Your task to perform on an android device: find snoozed emails in the gmail app Image 0: 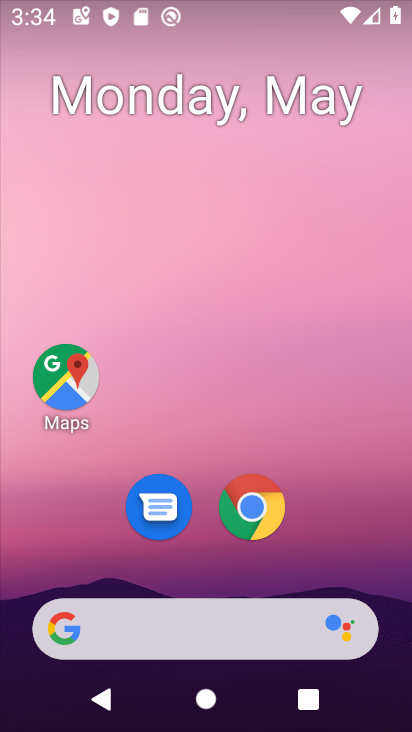
Step 0: drag from (197, 585) to (235, 43)
Your task to perform on an android device: find snoozed emails in the gmail app Image 1: 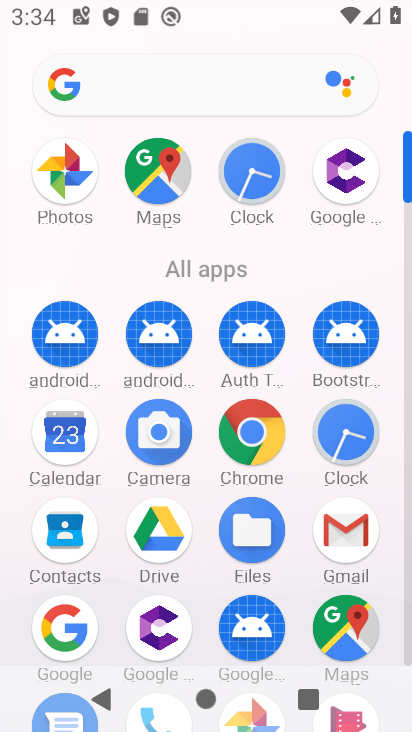
Step 1: click (332, 539)
Your task to perform on an android device: find snoozed emails in the gmail app Image 2: 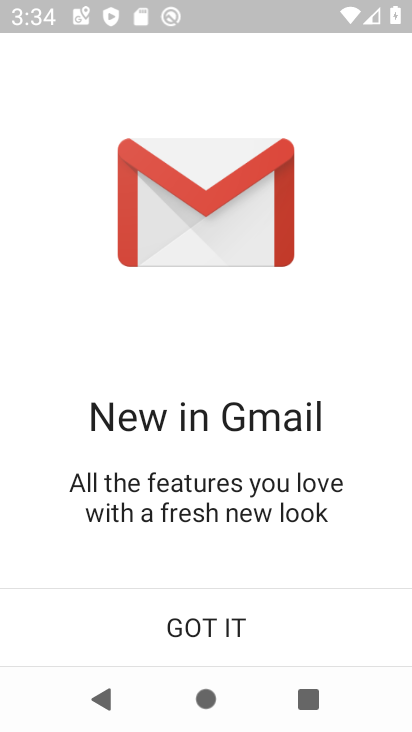
Step 2: click (155, 592)
Your task to perform on an android device: find snoozed emails in the gmail app Image 3: 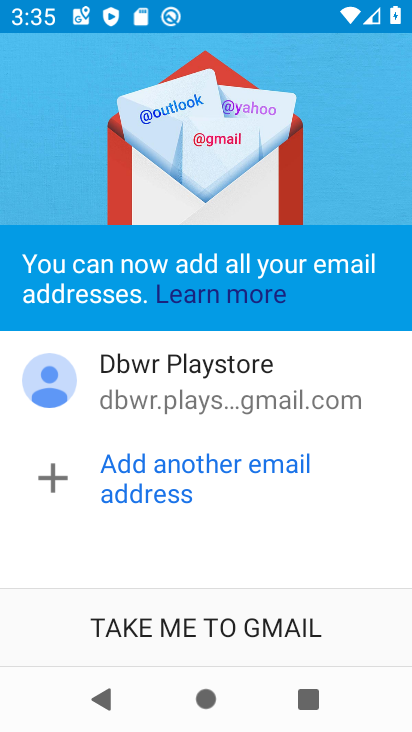
Step 3: click (133, 650)
Your task to perform on an android device: find snoozed emails in the gmail app Image 4: 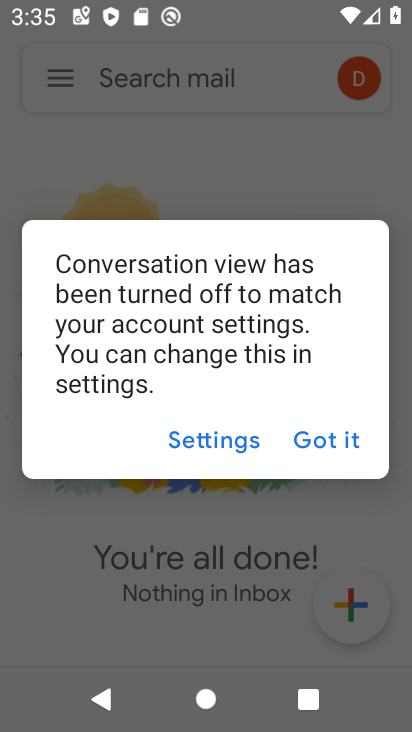
Step 4: click (331, 450)
Your task to perform on an android device: find snoozed emails in the gmail app Image 5: 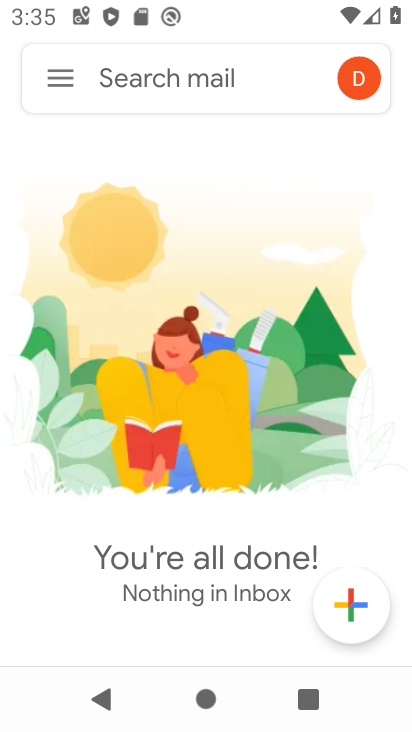
Step 5: click (46, 85)
Your task to perform on an android device: find snoozed emails in the gmail app Image 6: 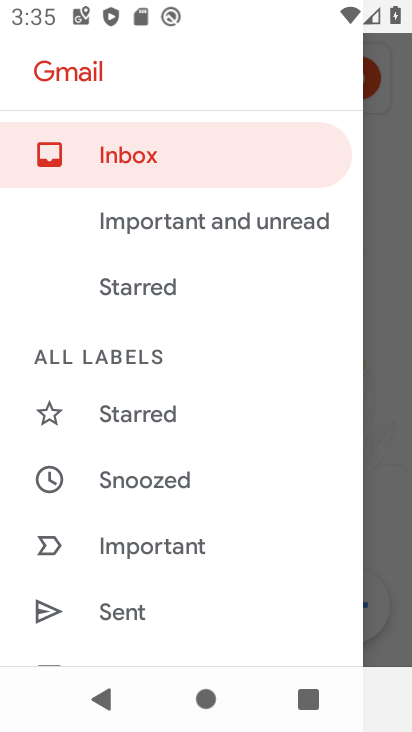
Step 6: click (123, 473)
Your task to perform on an android device: find snoozed emails in the gmail app Image 7: 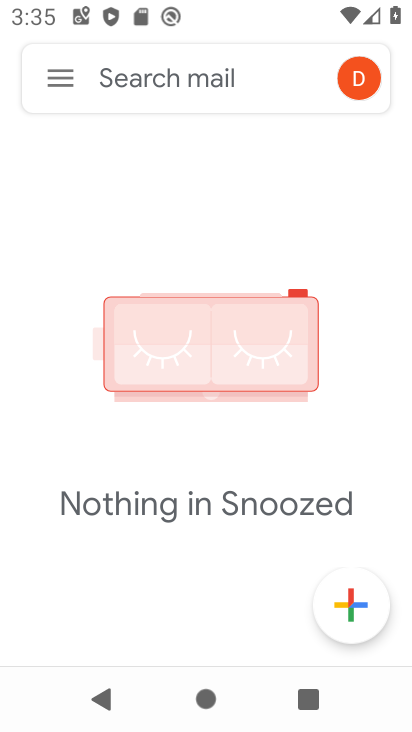
Step 7: task complete